Your task to perform on an android device: toggle show notifications on the lock screen Image 0: 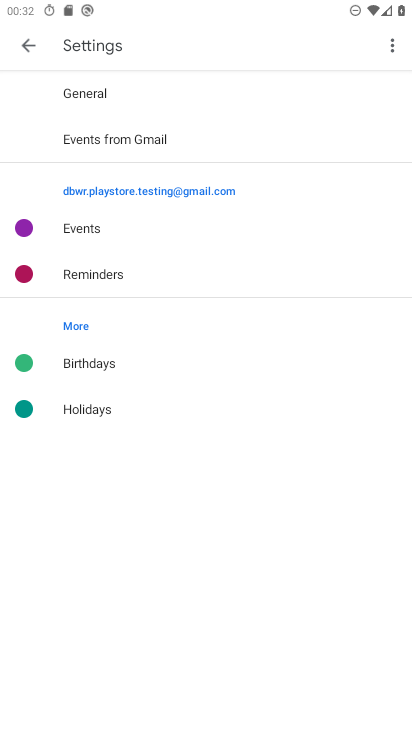
Step 0: press home button
Your task to perform on an android device: toggle show notifications on the lock screen Image 1: 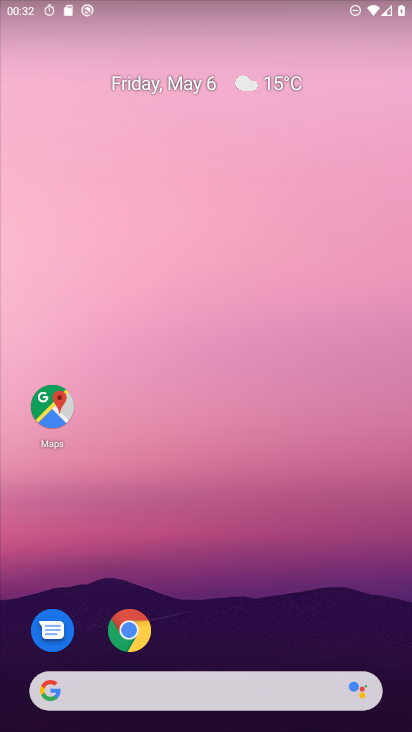
Step 1: drag from (253, 590) to (255, 80)
Your task to perform on an android device: toggle show notifications on the lock screen Image 2: 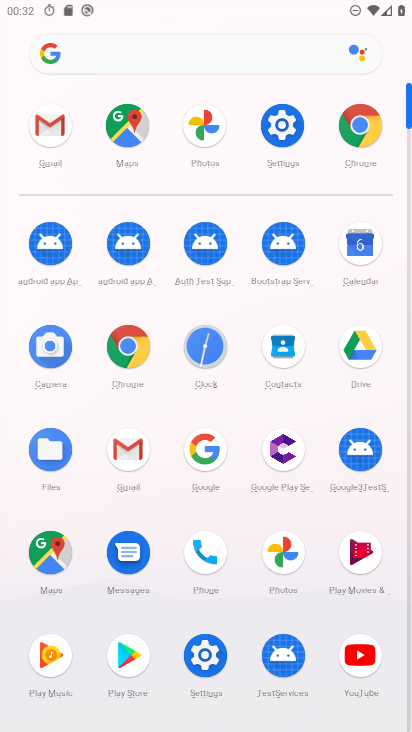
Step 2: click (286, 121)
Your task to perform on an android device: toggle show notifications on the lock screen Image 3: 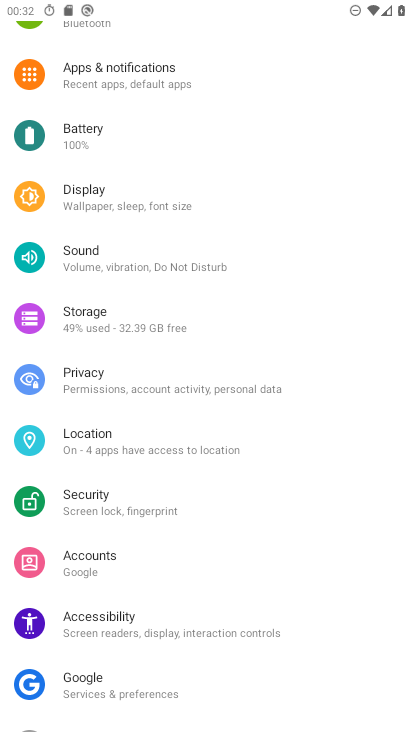
Step 3: click (150, 81)
Your task to perform on an android device: toggle show notifications on the lock screen Image 4: 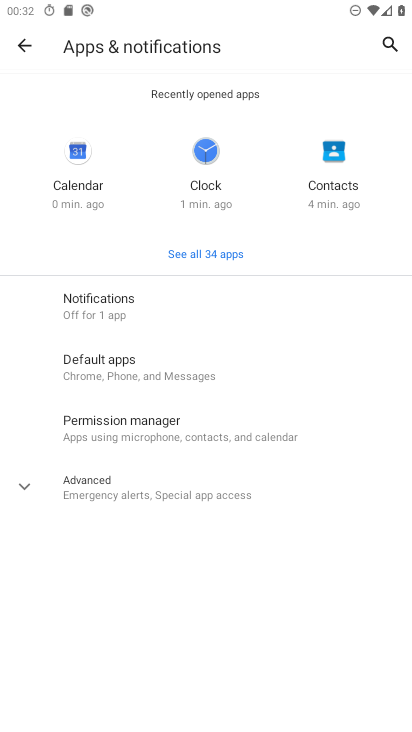
Step 4: click (143, 309)
Your task to perform on an android device: toggle show notifications on the lock screen Image 5: 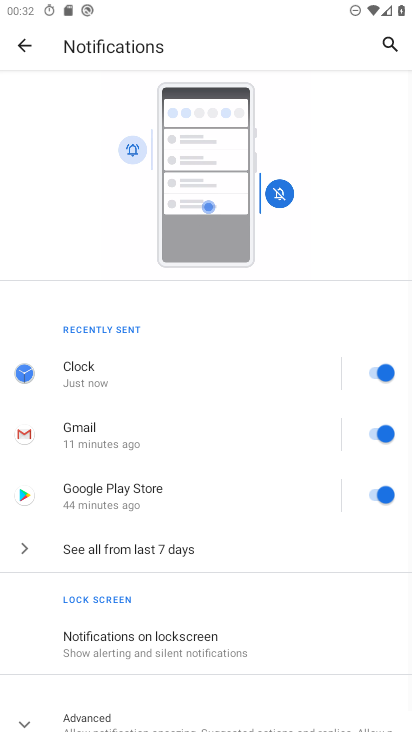
Step 5: drag from (249, 660) to (218, 167)
Your task to perform on an android device: toggle show notifications on the lock screen Image 6: 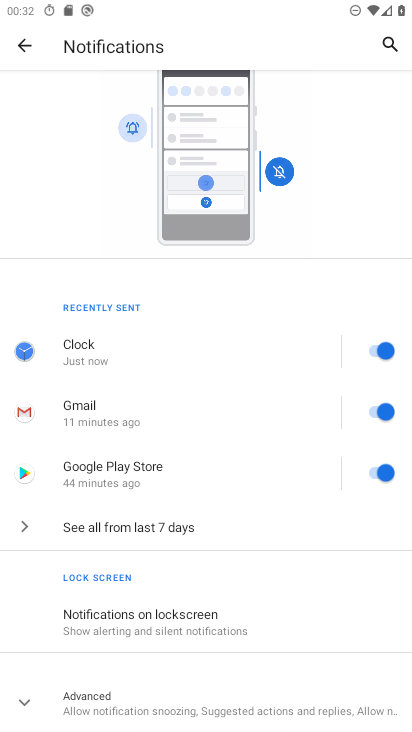
Step 6: click (152, 622)
Your task to perform on an android device: toggle show notifications on the lock screen Image 7: 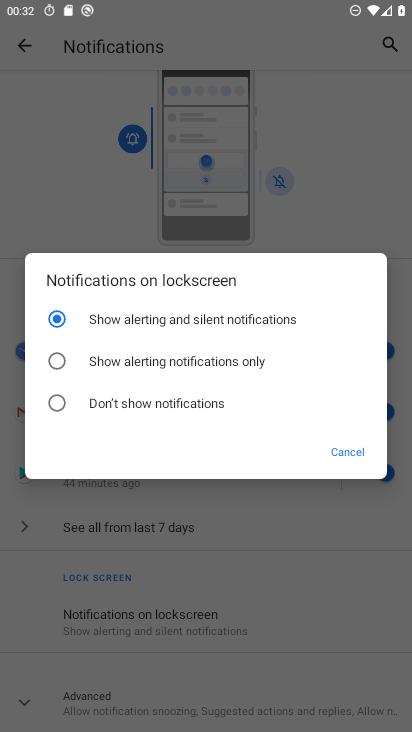
Step 7: click (214, 367)
Your task to perform on an android device: toggle show notifications on the lock screen Image 8: 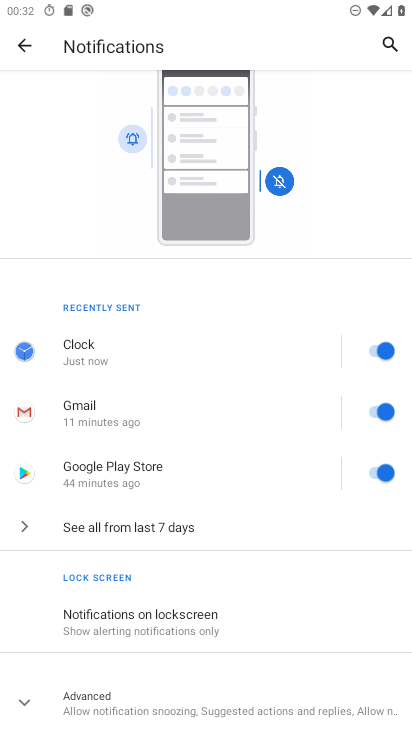
Step 8: task complete